Your task to perform on an android device: Open ESPN.com Image 0: 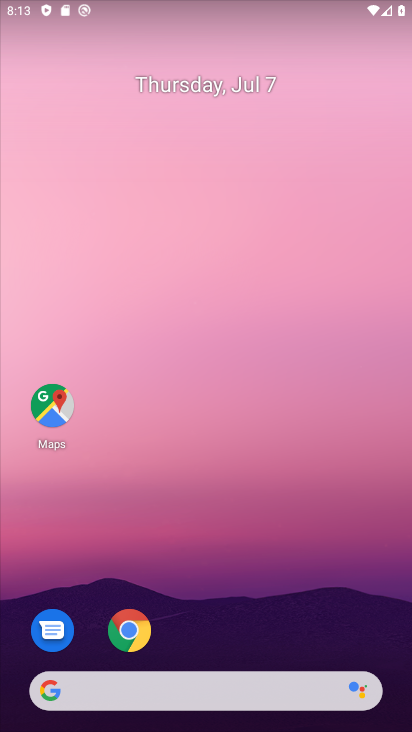
Step 0: click (136, 632)
Your task to perform on an android device: Open ESPN.com Image 1: 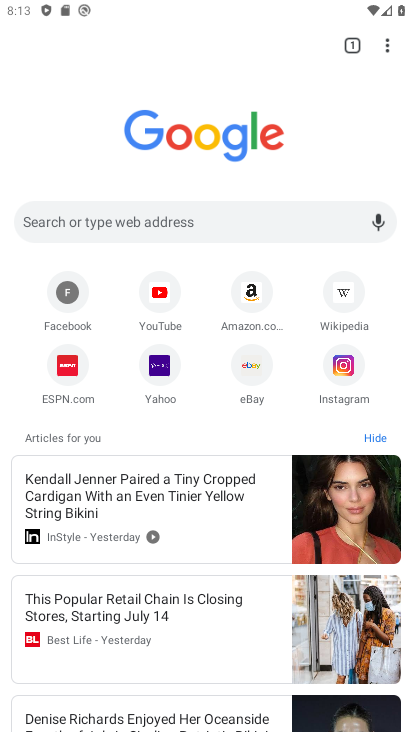
Step 1: click (61, 387)
Your task to perform on an android device: Open ESPN.com Image 2: 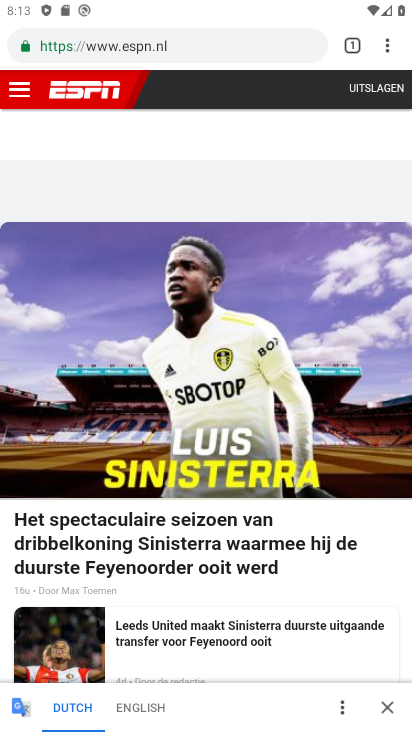
Step 2: task complete